Your task to perform on an android device: Open Youtube and go to the subscriptions tab Image 0: 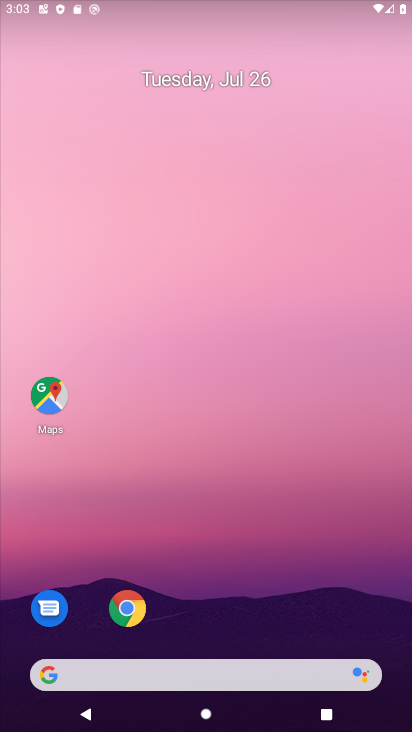
Step 0: drag from (270, 634) to (220, 173)
Your task to perform on an android device: Open Youtube and go to the subscriptions tab Image 1: 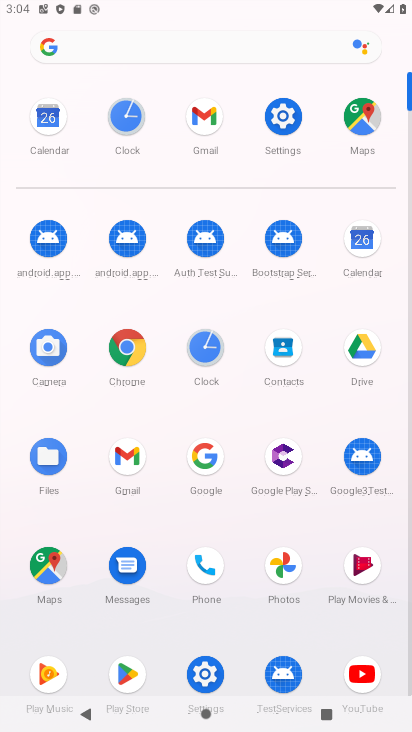
Step 1: click (361, 703)
Your task to perform on an android device: Open Youtube and go to the subscriptions tab Image 2: 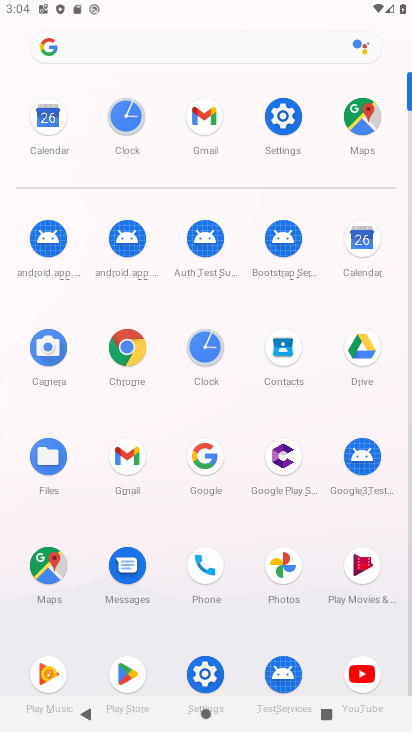
Step 2: click (367, 684)
Your task to perform on an android device: Open Youtube and go to the subscriptions tab Image 3: 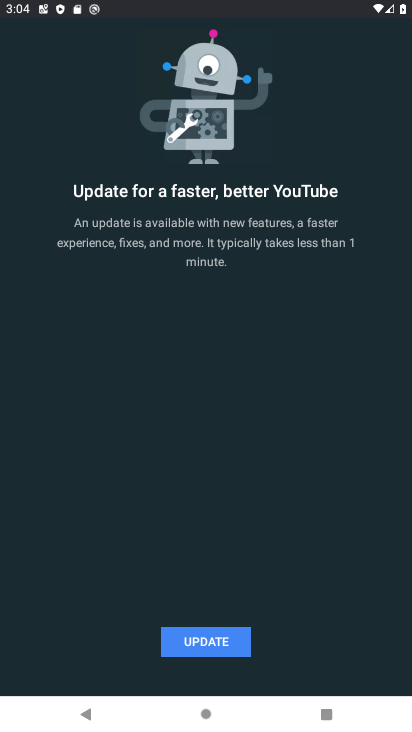
Step 3: click (210, 654)
Your task to perform on an android device: Open Youtube and go to the subscriptions tab Image 4: 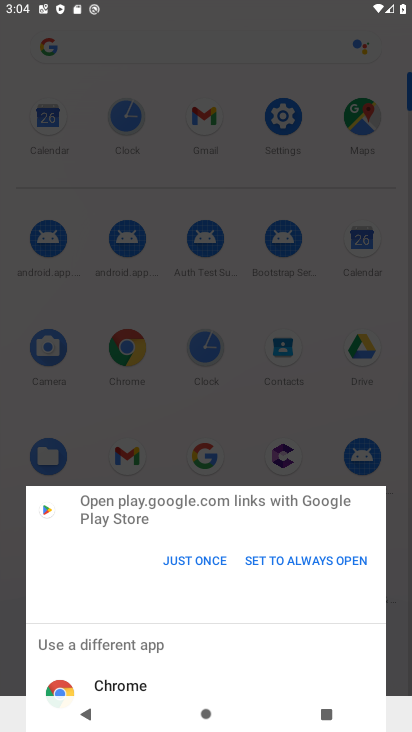
Step 4: click (206, 669)
Your task to perform on an android device: Open Youtube and go to the subscriptions tab Image 5: 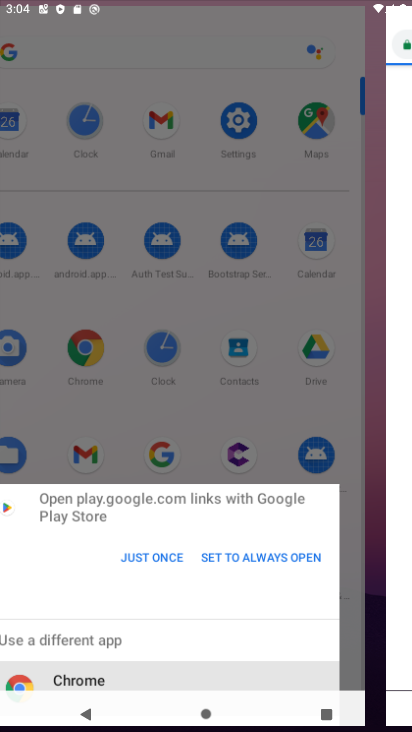
Step 5: click (206, 679)
Your task to perform on an android device: Open Youtube and go to the subscriptions tab Image 6: 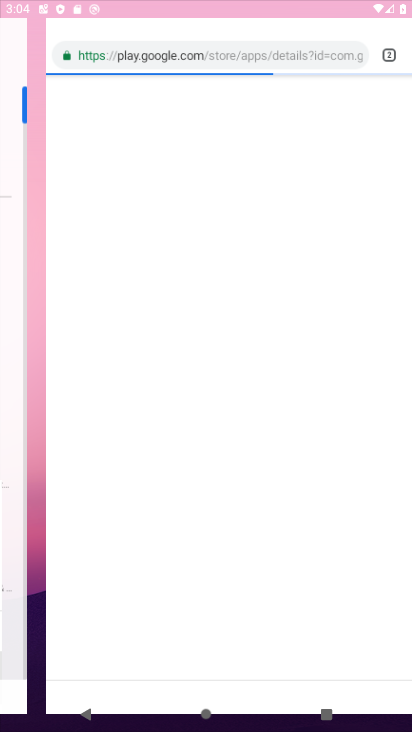
Step 6: click (206, 679)
Your task to perform on an android device: Open Youtube and go to the subscriptions tab Image 7: 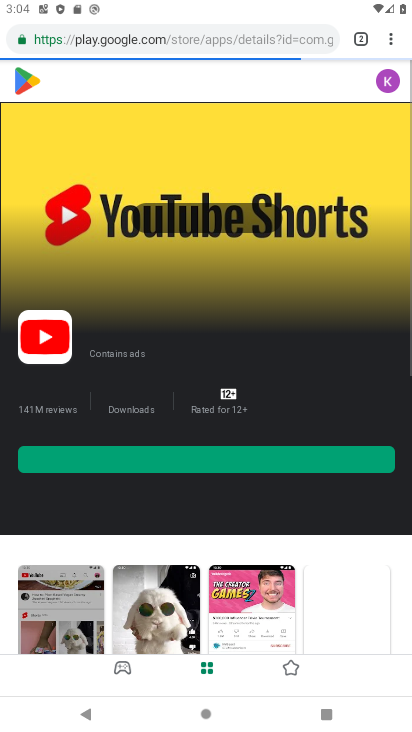
Step 7: task complete